Your task to perform on an android device: toggle data saver in the chrome app Image 0: 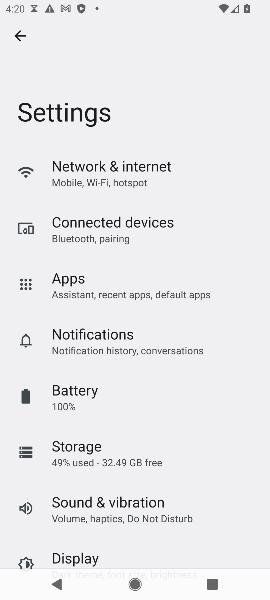
Step 0: press home button
Your task to perform on an android device: toggle data saver in the chrome app Image 1: 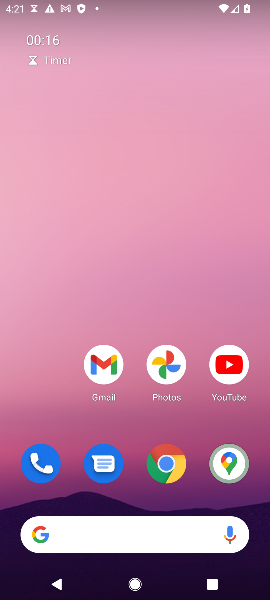
Step 1: click (164, 460)
Your task to perform on an android device: toggle data saver in the chrome app Image 2: 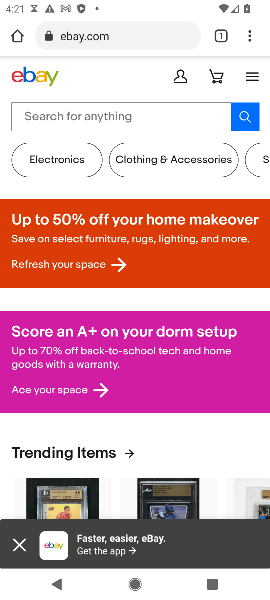
Step 2: click (247, 35)
Your task to perform on an android device: toggle data saver in the chrome app Image 3: 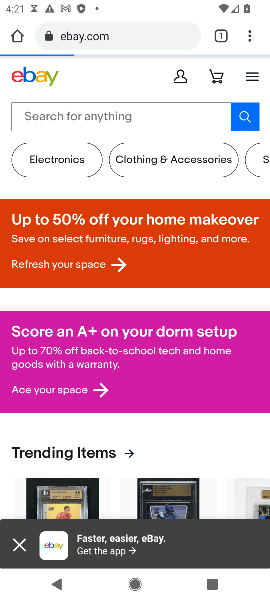
Step 3: click (249, 35)
Your task to perform on an android device: toggle data saver in the chrome app Image 4: 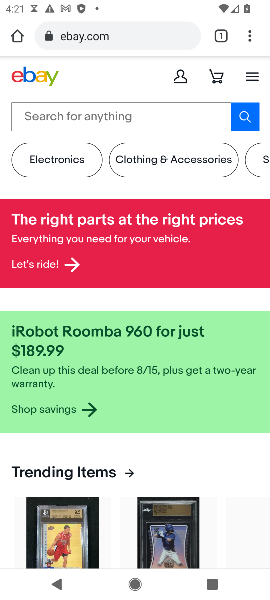
Step 4: click (235, 33)
Your task to perform on an android device: toggle data saver in the chrome app Image 5: 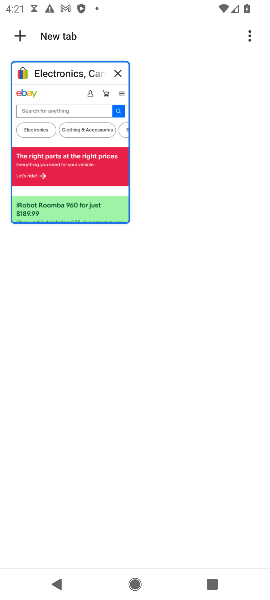
Step 5: click (250, 34)
Your task to perform on an android device: toggle data saver in the chrome app Image 6: 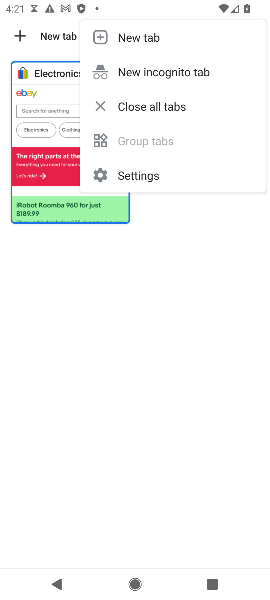
Step 6: click (133, 172)
Your task to perform on an android device: toggle data saver in the chrome app Image 7: 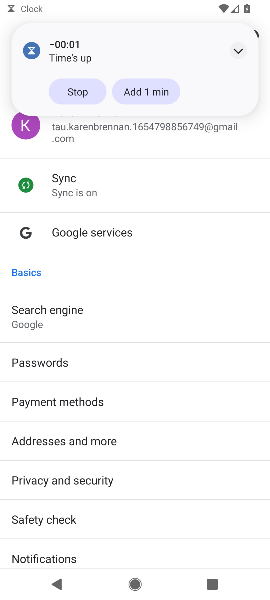
Step 7: drag from (109, 517) to (105, 219)
Your task to perform on an android device: toggle data saver in the chrome app Image 8: 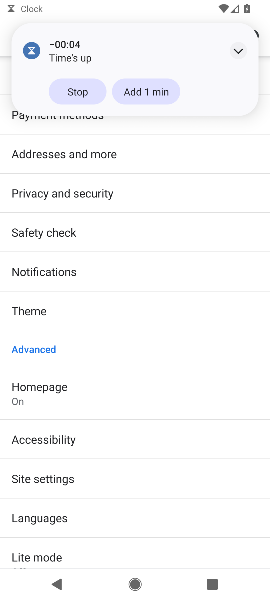
Step 8: click (44, 560)
Your task to perform on an android device: toggle data saver in the chrome app Image 9: 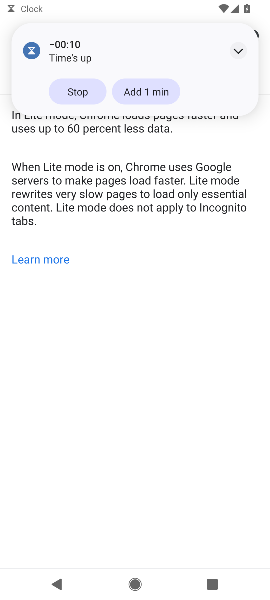
Step 9: click (70, 94)
Your task to perform on an android device: toggle data saver in the chrome app Image 10: 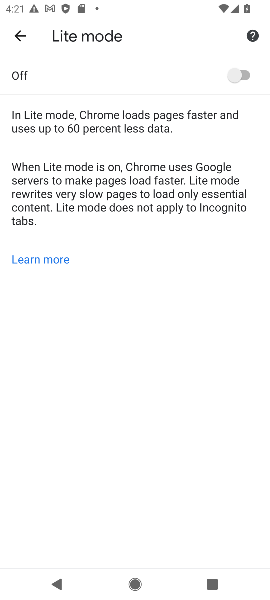
Step 10: click (237, 71)
Your task to perform on an android device: toggle data saver in the chrome app Image 11: 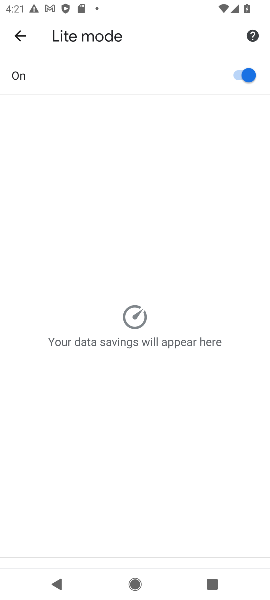
Step 11: task complete